Your task to perform on an android device: turn off location history Image 0: 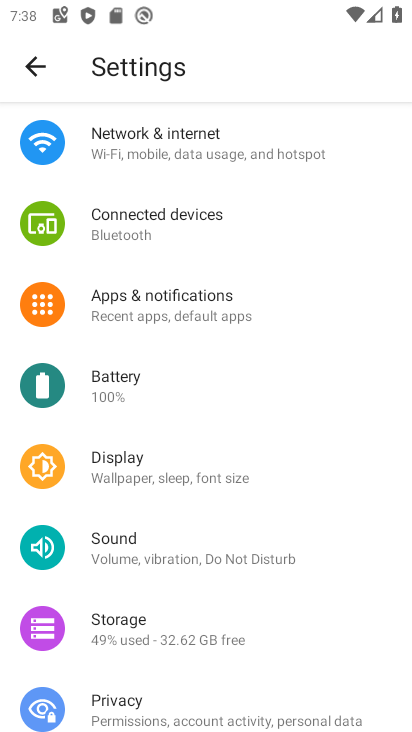
Step 0: drag from (256, 577) to (254, 188)
Your task to perform on an android device: turn off location history Image 1: 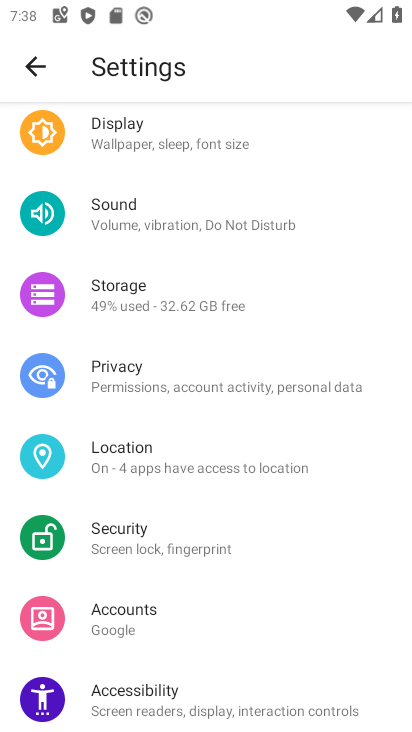
Step 1: click (207, 456)
Your task to perform on an android device: turn off location history Image 2: 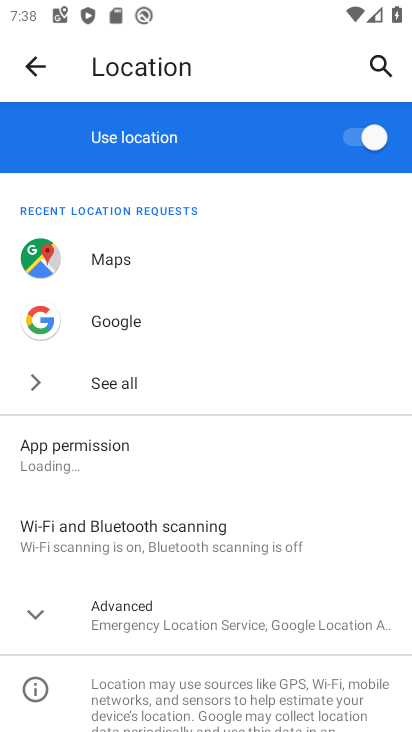
Step 2: click (32, 607)
Your task to perform on an android device: turn off location history Image 3: 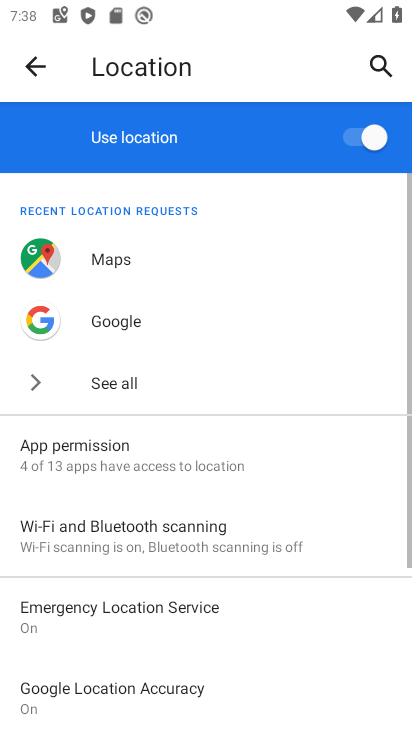
Step 3: task complete